Your task to perform on an android device: snooze an email in the gmail app Image 0: 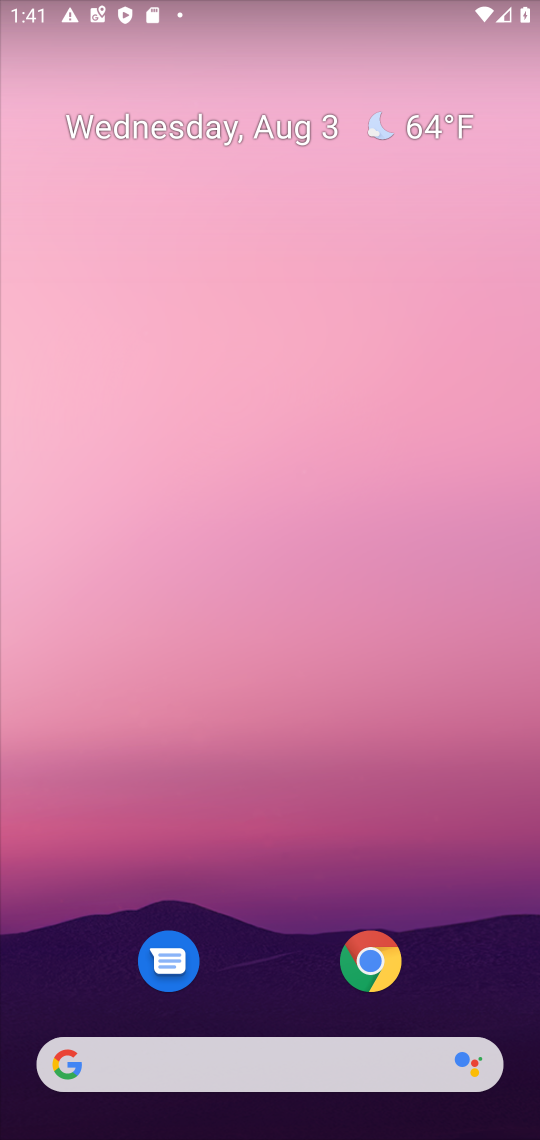
Step 0: drag from (292, 980) to (308, 7)
Your task to perform on an android device: snooze an email in the gmail app Image 1: 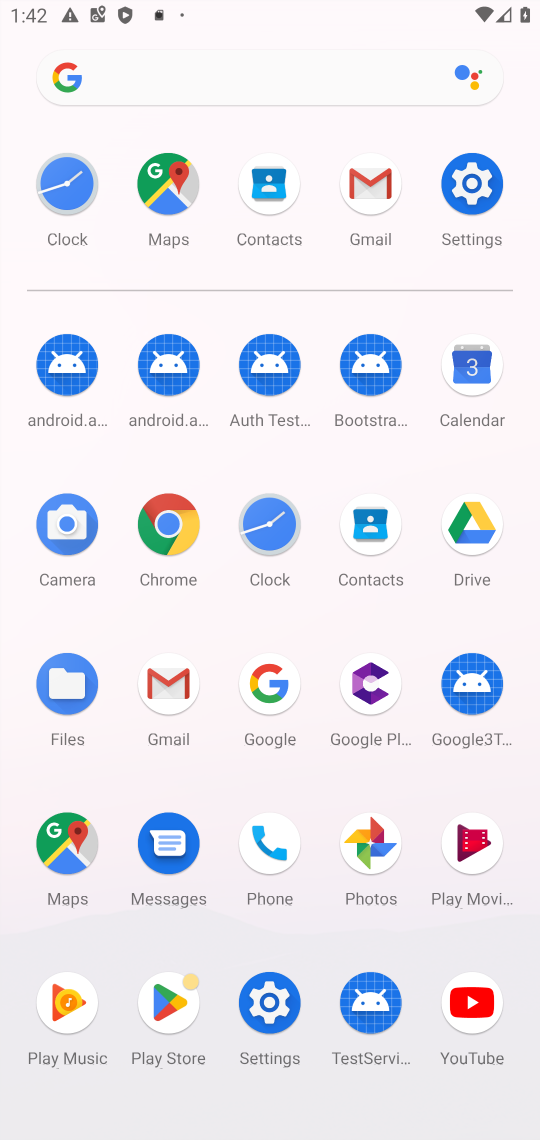
Step 1: click (366, 192)
Your task to perform on an android device: snooze an email in the gmail app Image 2: 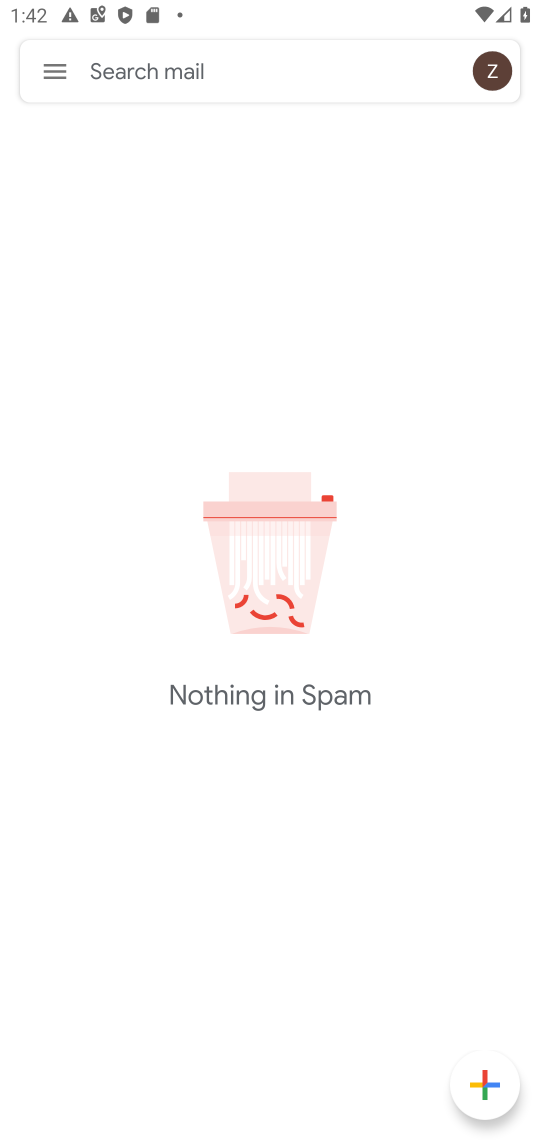
Step 2: click (43, 70)
Your task to perform on an android device: snooze an email in the gmail app Image 3: 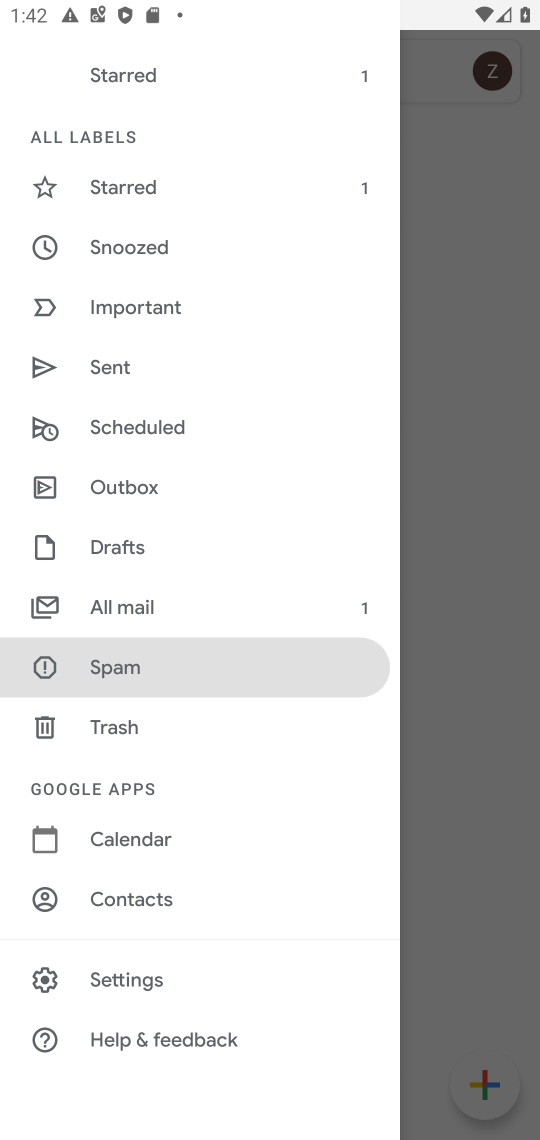
Step 3: click (114, 597)
Your task to perform on an android device: snooze an email in the gmail app Image 4: 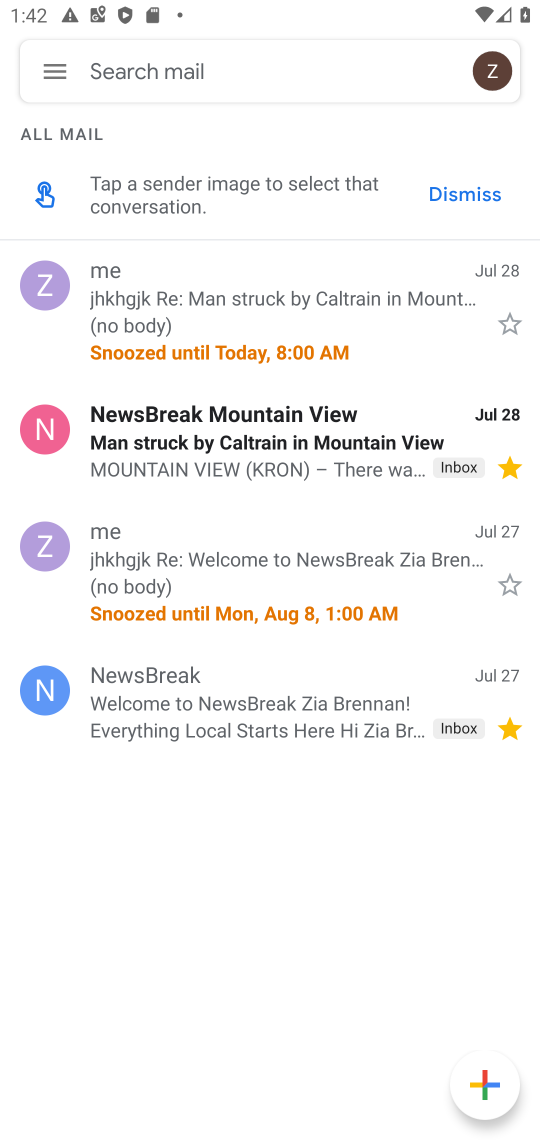
Step 4: click (220, 708)
Your task to perform on an android device: snooze an email in the gmail app Image 5: 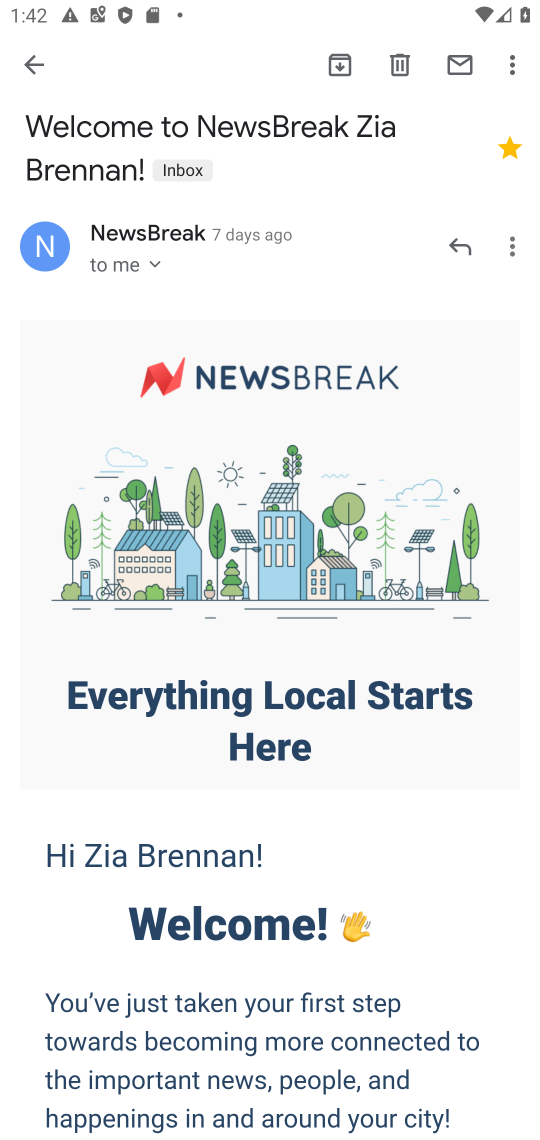
Step 5: click (514, 62)
Your task to perform on an android device: snooze an email in the gmail app Image 6: 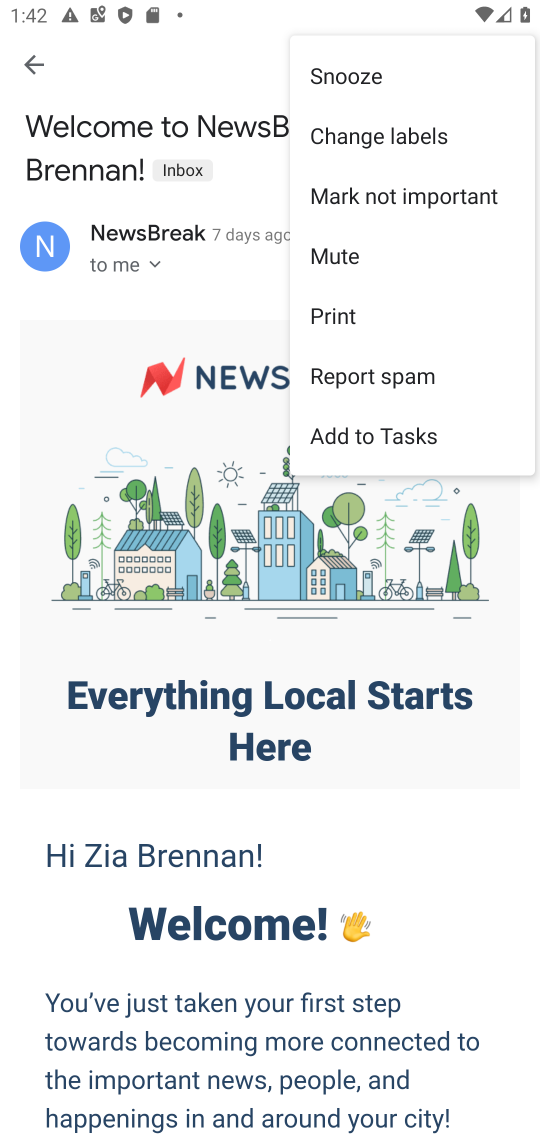
Step 6: click (392, 82)
Your task to perform on an android device: snooze an email in the gmail app Image 7: 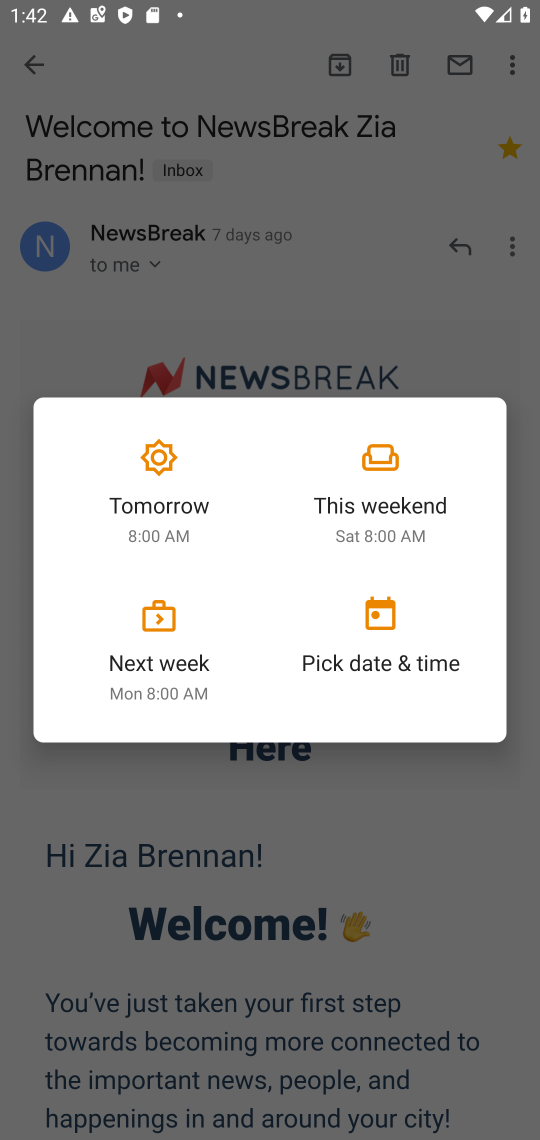
Step 7: click (149, 492)
Your task to perform on an android device: snooze an email in the gmail app Image 8: 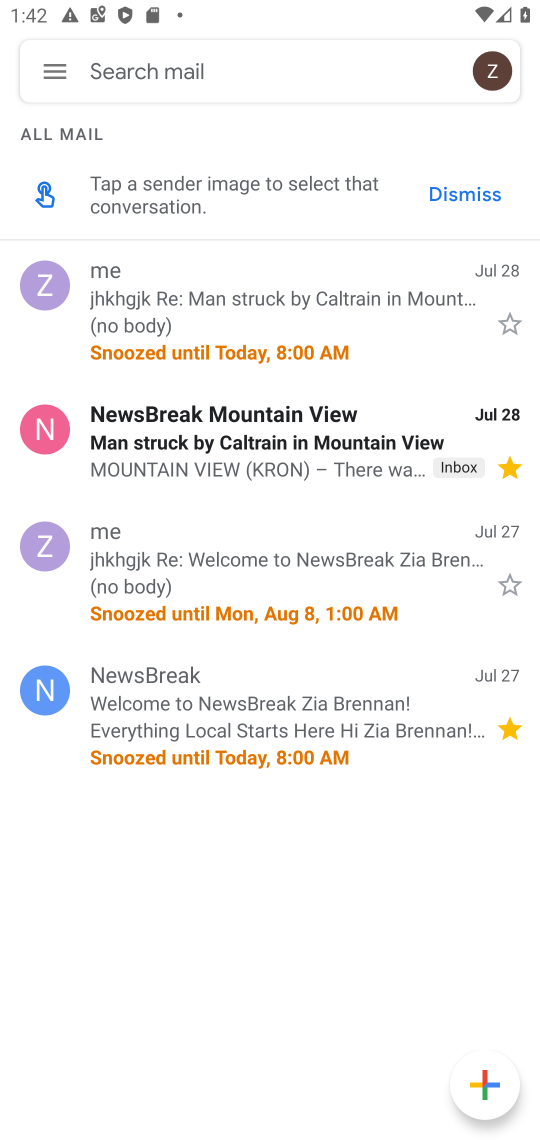
Step 8: task complete